Your task to perform on an android device: install app "The Home Depot" Image 0: 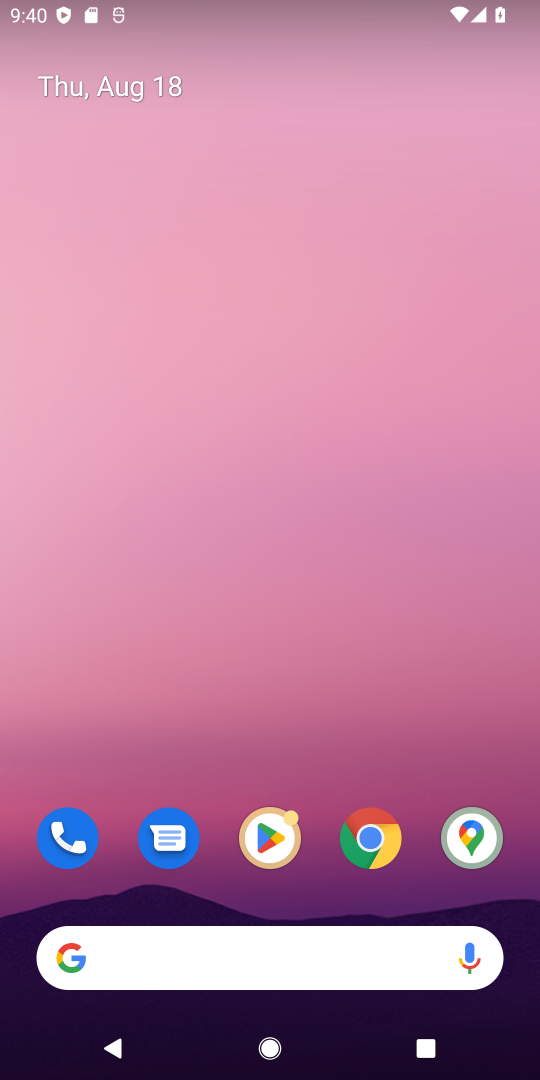
Step 0: task complete